Your task to perform on an android device: empty trash in the gmail app Image 0: 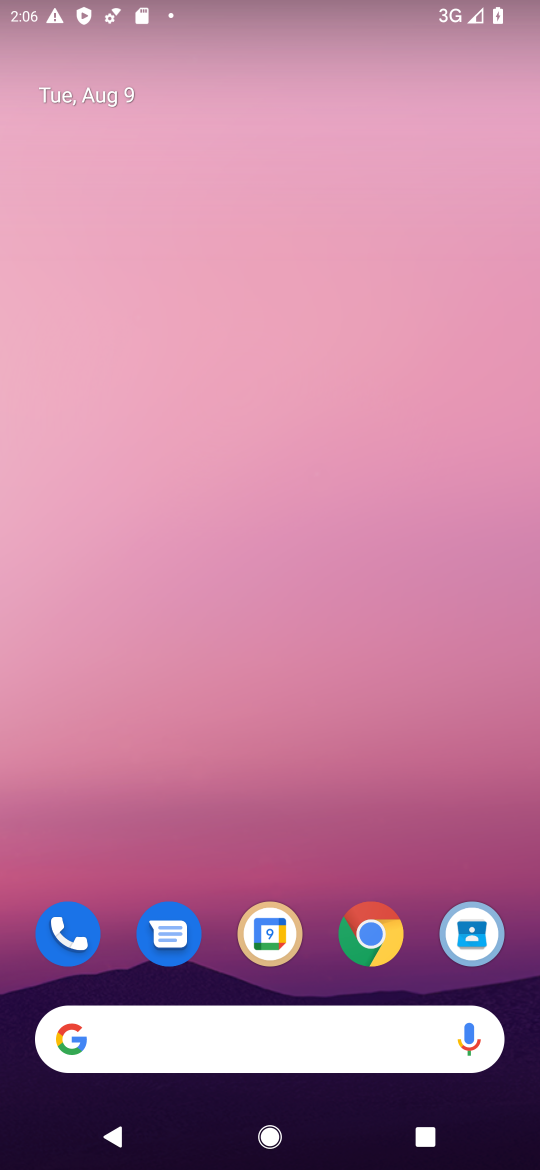
Step 0: drag from (317, 977) to (383, 182)
Your task to perform on an android device: empty trash in the gmail app Image 1: 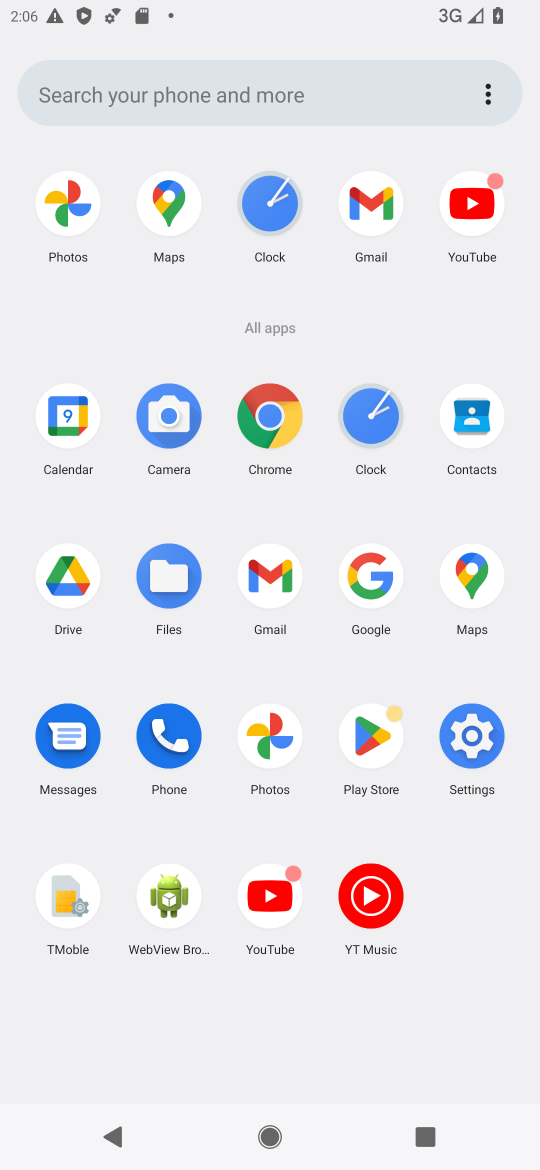
Step 1: click (289, 592)
Your task to perform on an android device: empty trash in the gmail app Image 2: 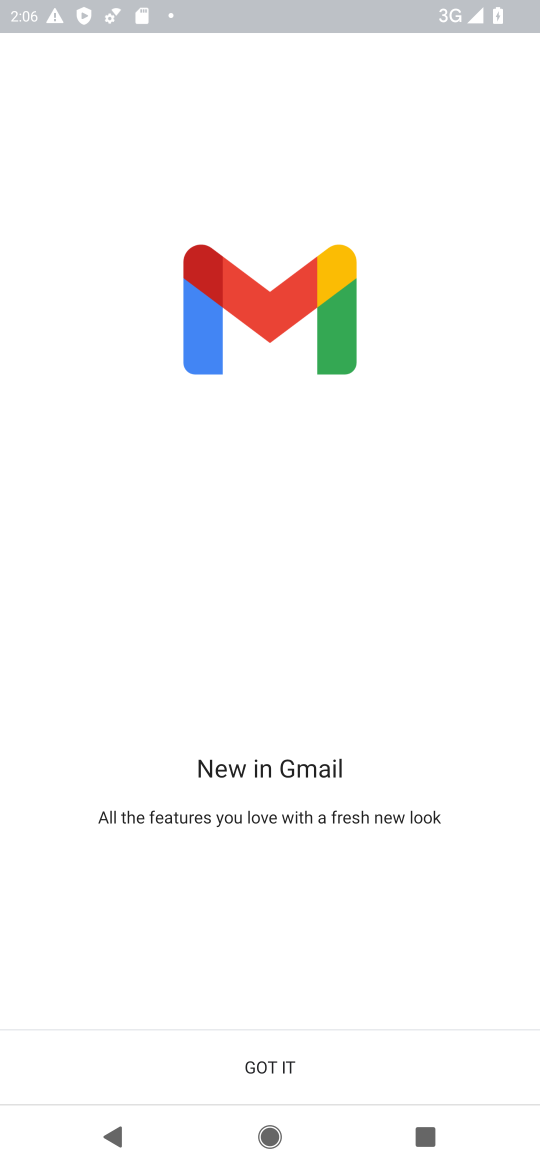
Step 2: click (313, 1035)
Your task to perform on an android device: empty trash in the gmail app Image 3: 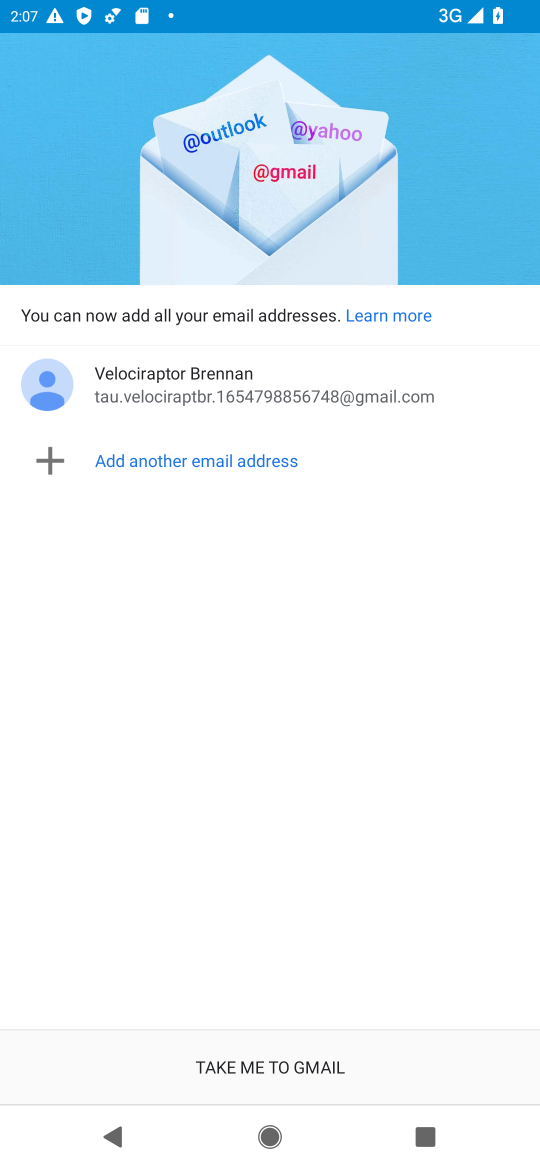
Step 3: click (313, 1035)
Your task to perform on an android device: empty trash in the gmail app Image 4: 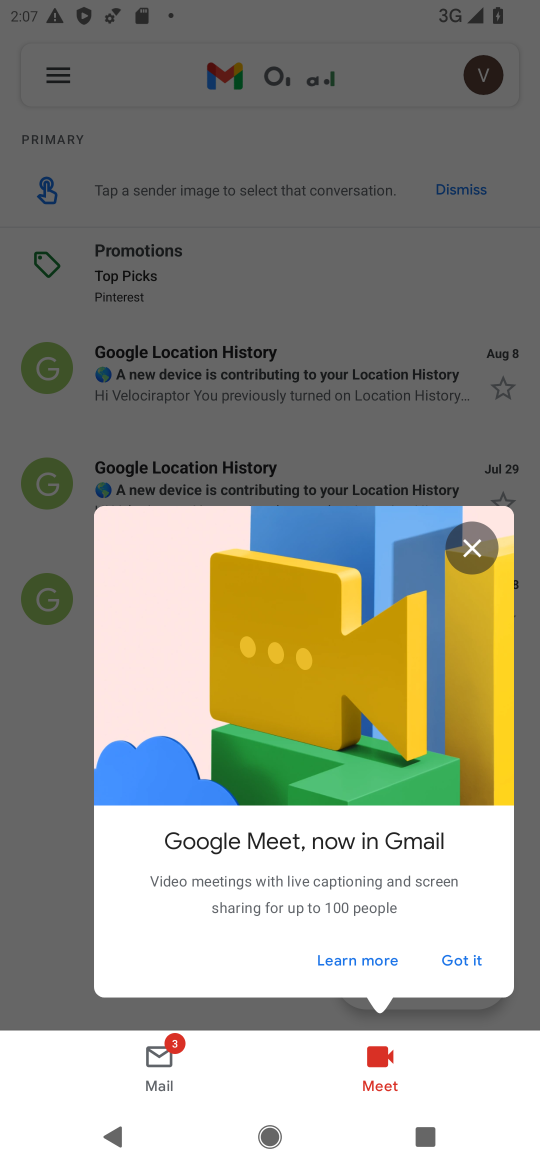
Step 4: task complete